Your task to perform on an android device: Go to battery settings Image 0: 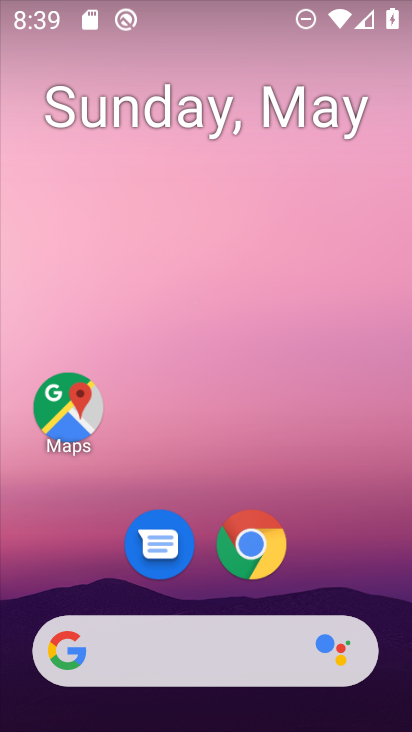
Step 0: drag from (322, 508) to (267, 8)
Your task to perform on an android device: Go to battery settings Image 1: 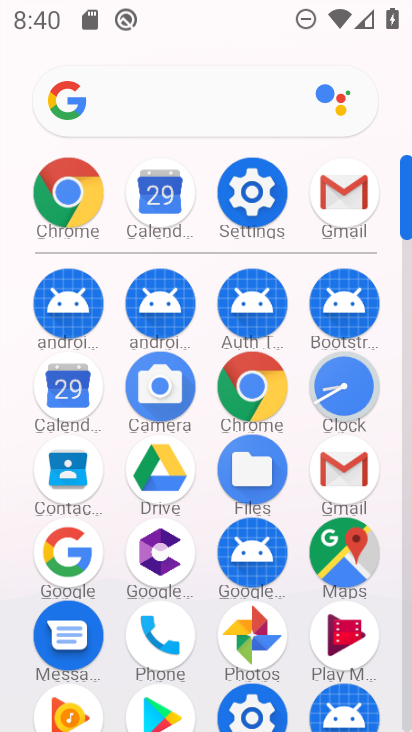
Step 1: drag from (7, 563) to (6, 237)
Your task to perform on an android device: Go to battery settings Image 2: 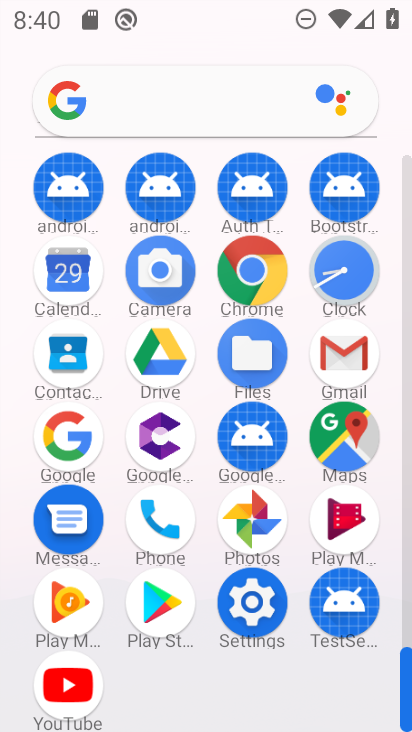
Step 2: click (249, 602)
Your task to perform on an android device: Go to battery settings Image 3: 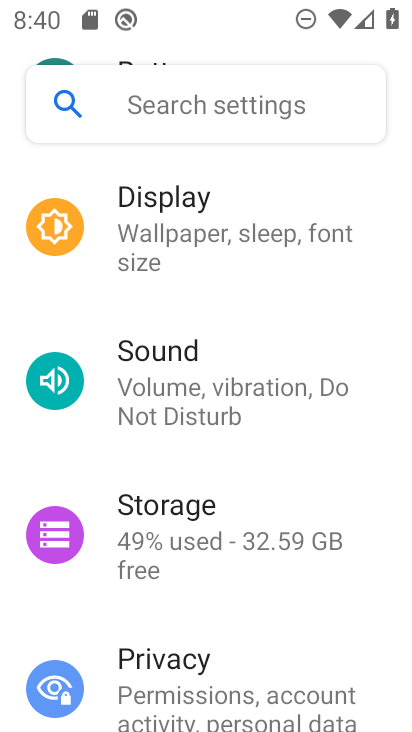
Step 3: drag from (261, 592) to (281, 239)
Your task to perform on an android device: Go to battery settings Image 4: 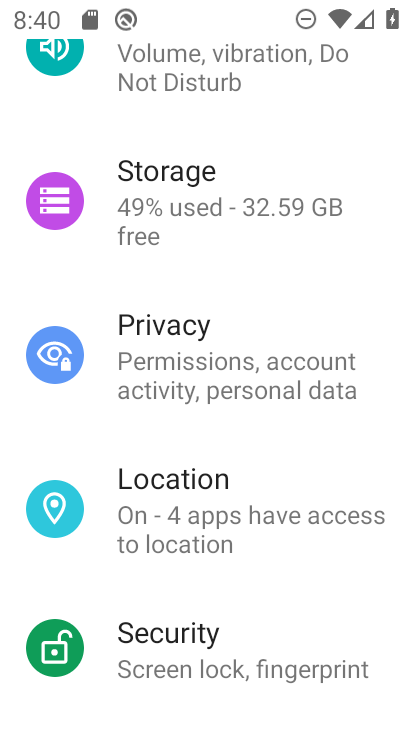
Step 4: drag from (202, 615) to (263, 148)
Your task to perform on an android device: Go to battery settings Image 5: 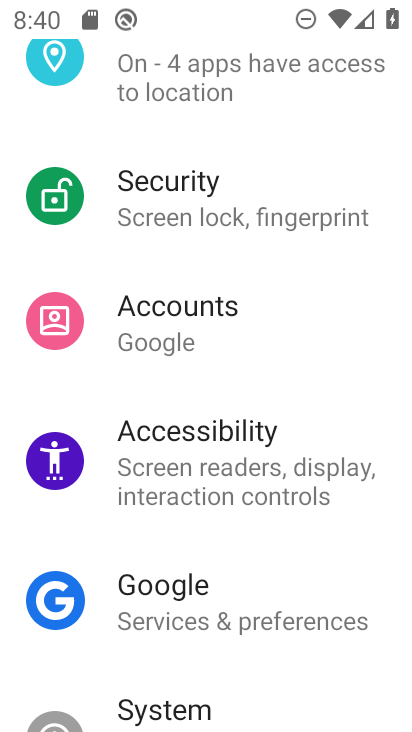
Step 5: drag from (259, 617) to (302, 157)
Your task to perform on an android device: Go to battery settings Image 6: 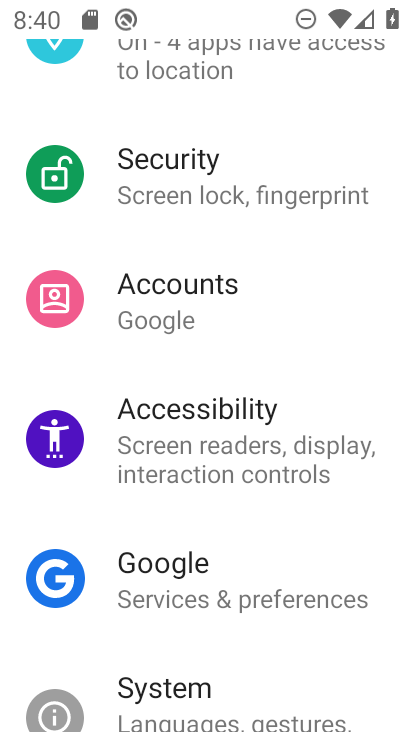
Step 6: drag from (291, 138) to (280, 591)
Your task to perform on an android device: Go to battery settings Image 7: 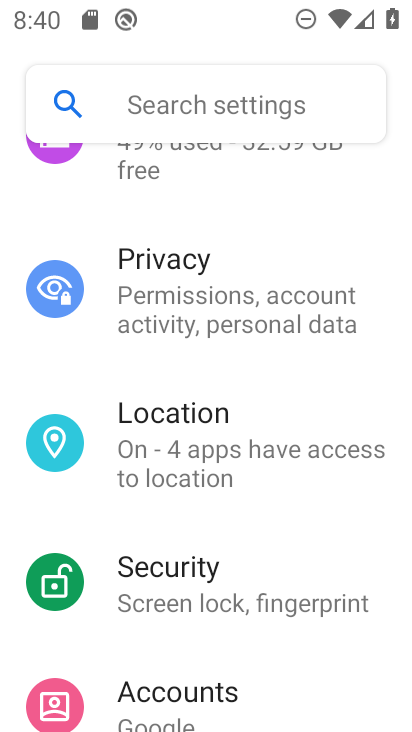
Step 7: drag from (274, 231) to (272, 560)
Your task to perform on an android device: Go to battery settings Image 8: 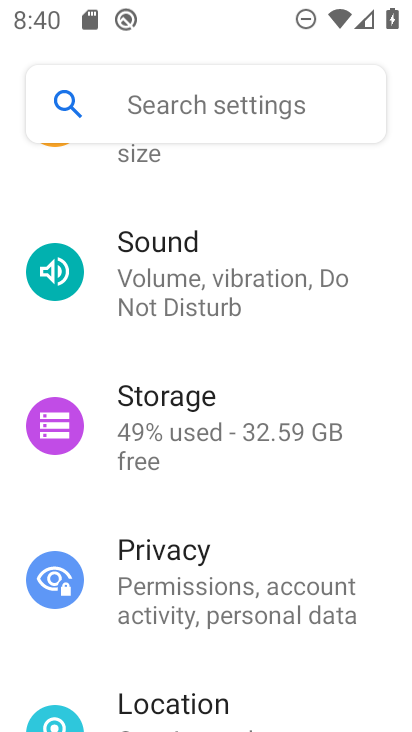
Step 8: drag from (259, 253) to (244, 632)
Your task to perform on an android device: Go to battery settings Image 9: 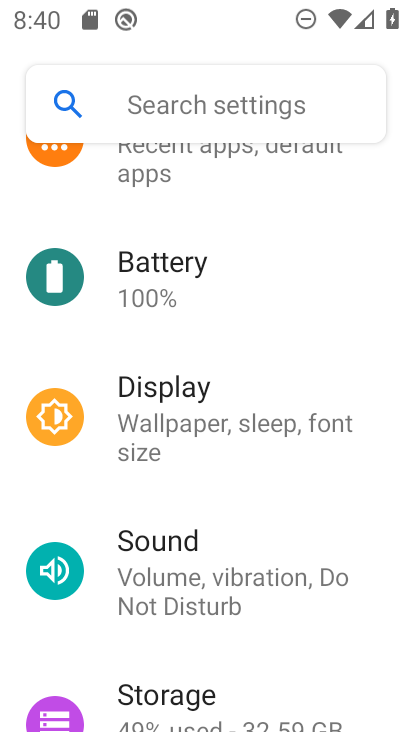
Step 9: click (185, 253)
Your task to perform on an android device: Go to battery settings Image 10: 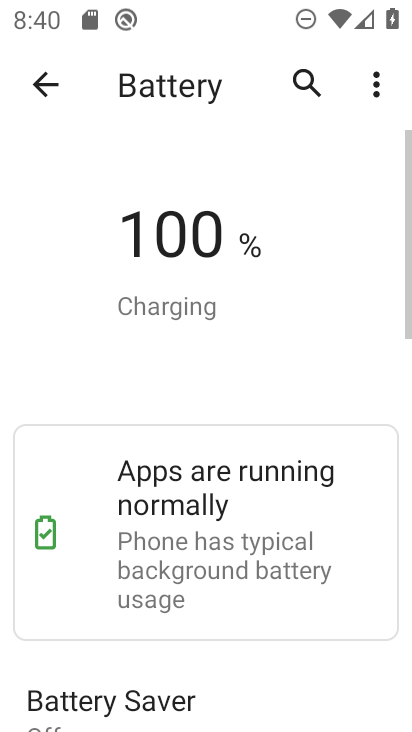
Step 10: task complete